Your task to perform on an android device: Is it going to rain this weekend? Image 0: 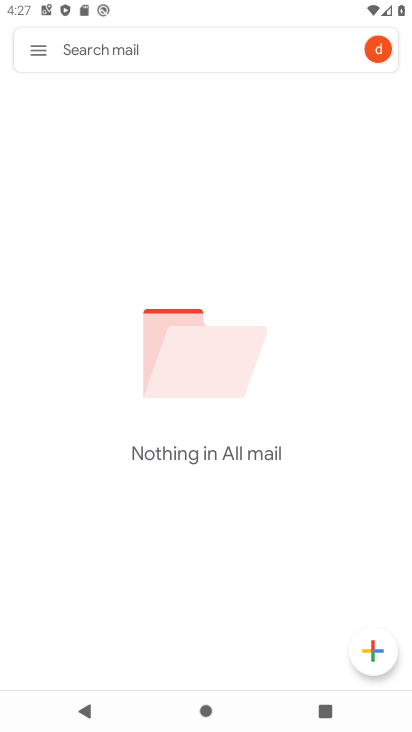
Step 0: press back button
Your task to perform on an android device: Is it going to rain this weekend? Image 1: 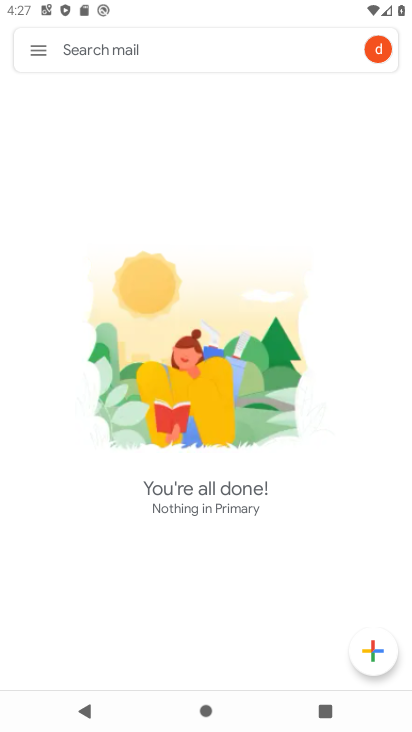
Step 1: press back button
Your task to perform on an android device: Is it going to rain this weekend? Image 2: 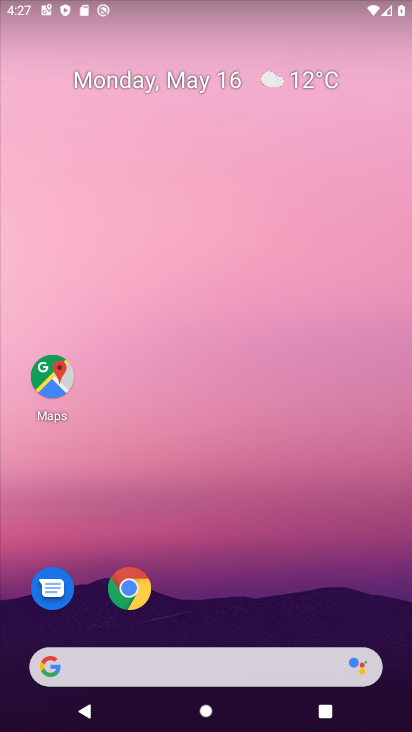
Step 2: click (274, 65)
Your task to perform on an android device: Is it going to rain this weekend? Image 3: 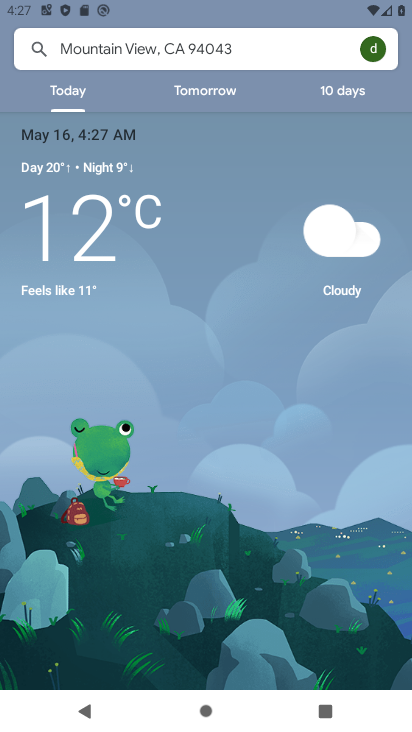
Step 3: click (325, 80)
Your task to perform on an android device: Is it going to rain this weekend? Image 4: 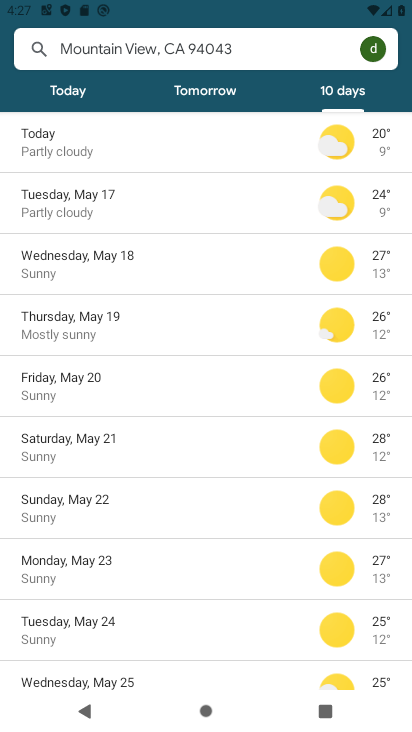
Step 4: task complete